Your task to perform on an android device: Open battery settings Image 0: 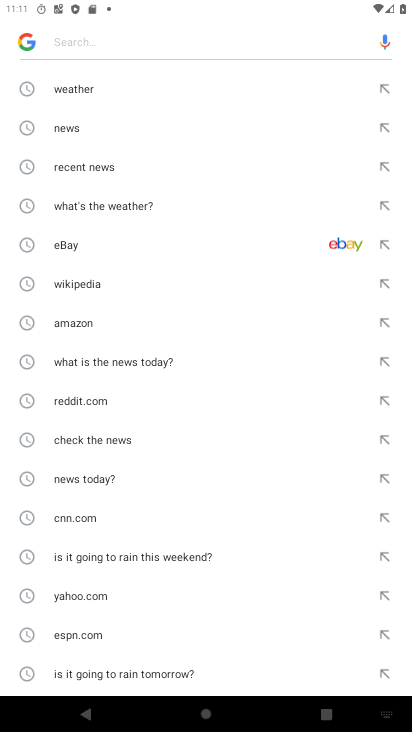
Step 0: press home button
Your task to perform on an android device: Open battery settings Image 1: 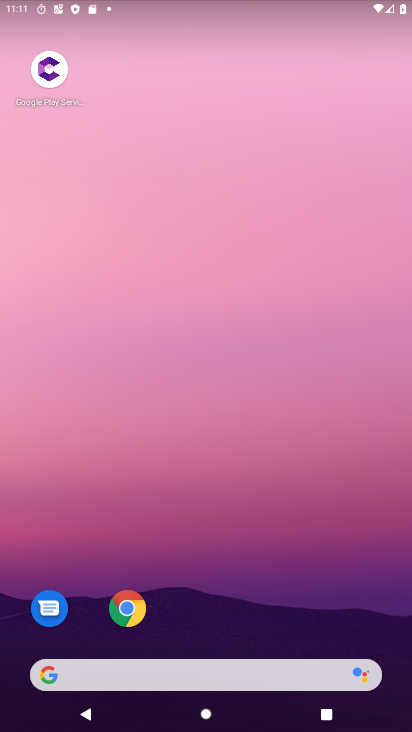
Step 1: drag from (224, 723) to (207, 97)
Your task to perform on an android device: Open battery settings Image 2: 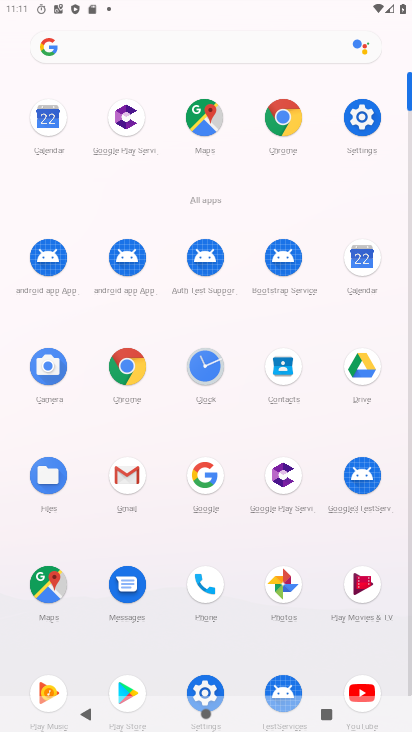
Step 2: click (363, 121)
Your task to perform on an android device: Open battery settings Image 3: 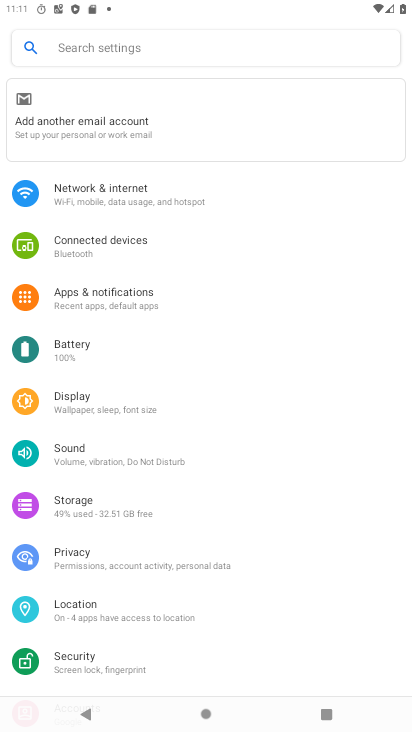
Step 3: click (67, 346)
Your task to perform on an android device: Open battery settings Image 4: 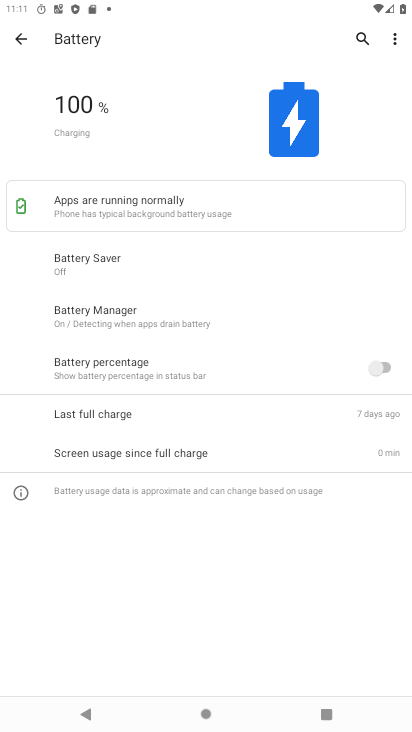
Step 4: task complete